Your task to perform on an android device: toggle data saver in the chrome app Image 0: 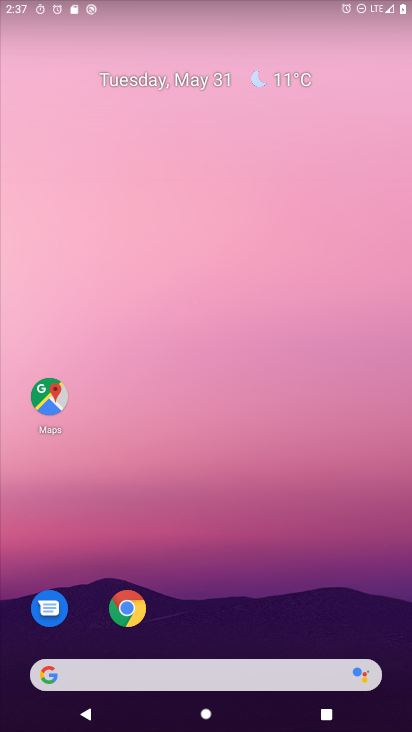
Step 0: click (133, 618)
Your task to perform on an android device: toggle data saver in the chrome app Image 1: 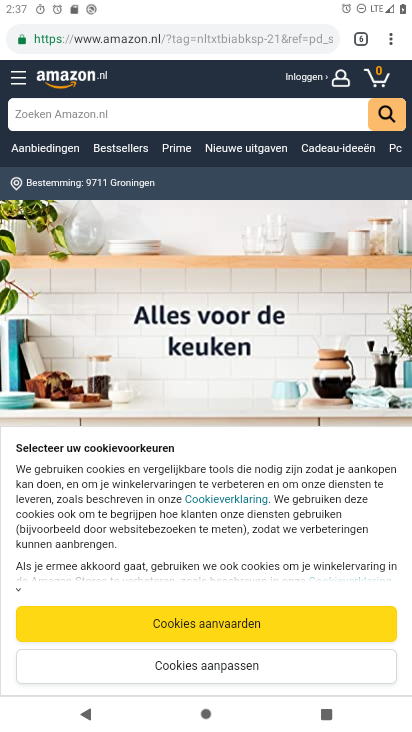
Step 1: click (390, 42)
Your task to perform on an android device: toggle data saver in the chrome app Image 2: 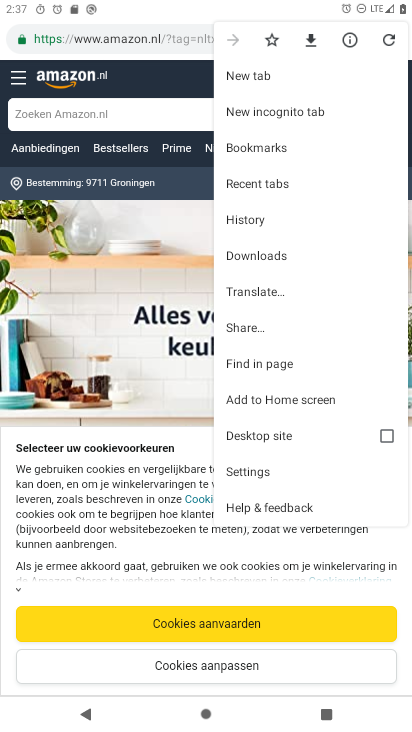
Step 2: click (248, 475)
Your task to perform on an android device: toggle data saver in the chrome app Image 3: 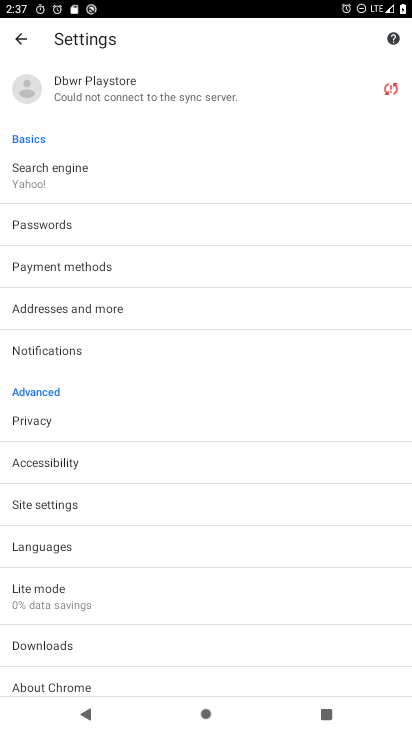
Step 3: click (47, 594)
Your task to perform on an android device: toggle data saver in the chrome app Image 4: 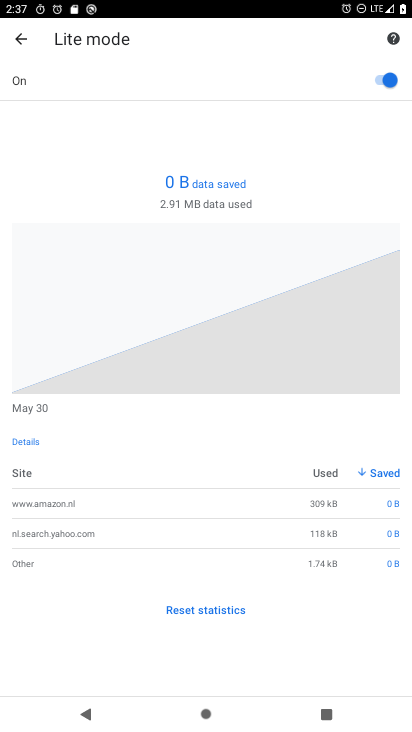
Step 4: click (367, 81)
Your task to perform on an android device: toggle data saver in the chrome app Image 5: 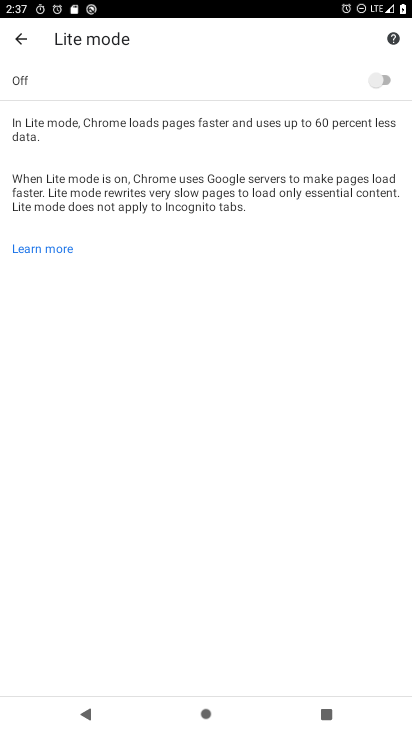
Step 5: task complete